Your task to perform on an android device: delete the emails in spam in the gmail app Image 0: 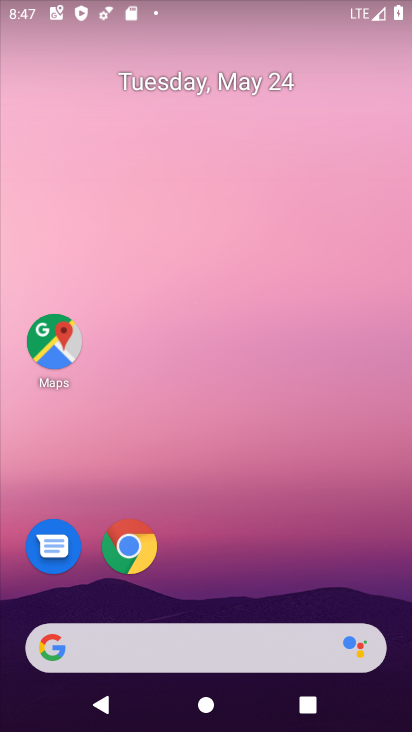
Step 0: drag from (247, 554) to (295, 38)
Your task to perform on an android device: delete the emails in spam in the gmail app Image 1: 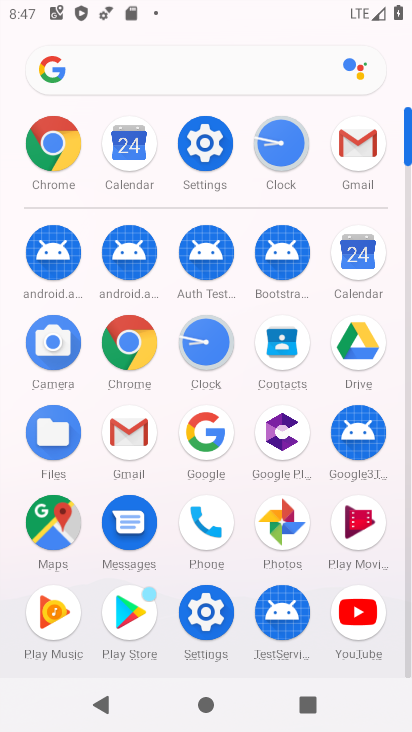
Step 1: click (361, 158)
Your task to perform on an android device: delete the emails in spam in the gmail app Image 2: 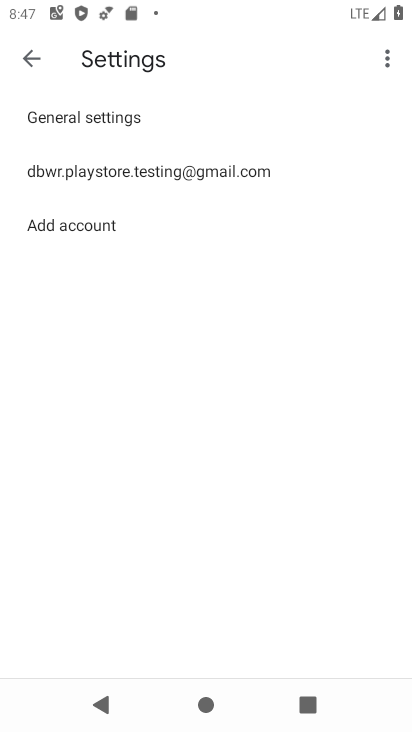
Step 2: click (27, 52)
Your task to perform on an android device: delete the emails in spam in the gmail app Image 3: 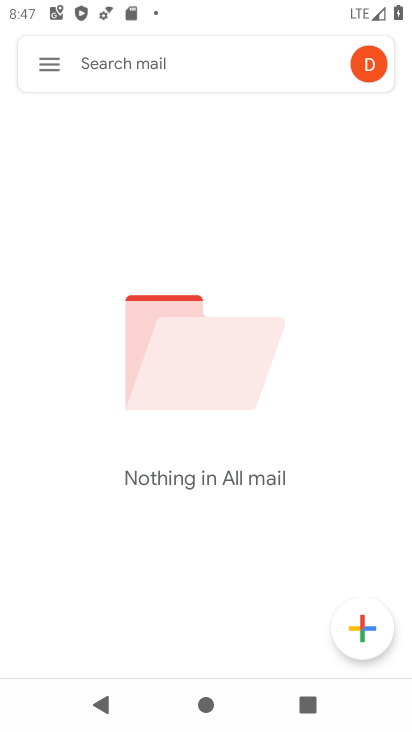
Step 3: click (46, 62)
Your task to perform on an android device: delete the emails in spam in the gmail app Image 4: 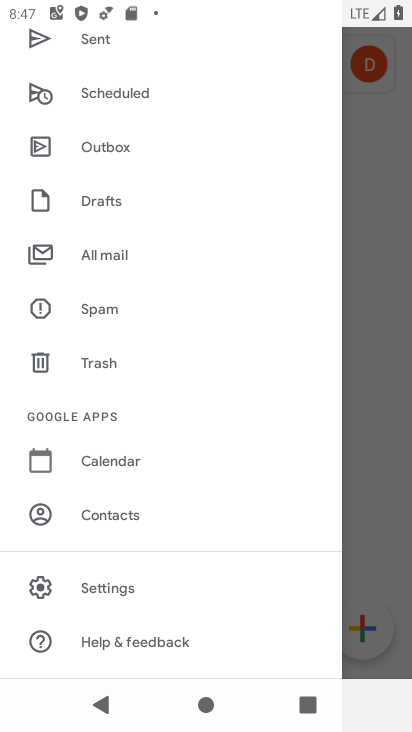
Step 4: click (114, 305)
Your task to perform on an android device: delete the emails in spam in the gmail app Image 5: 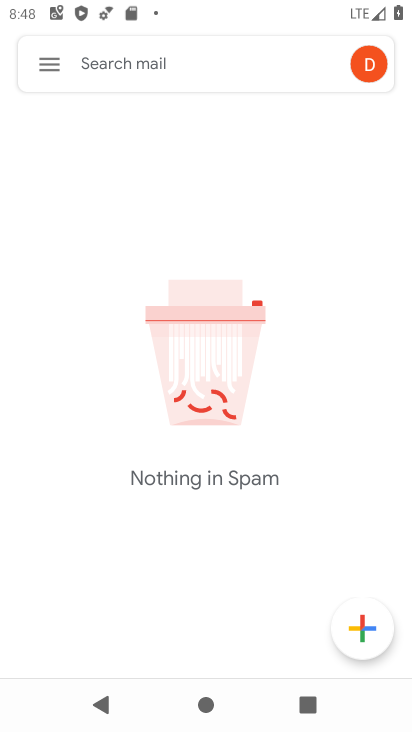
Step 5: task complete